Your task to perform on an android device: turn on showing notifications on the lock screen Image 0: 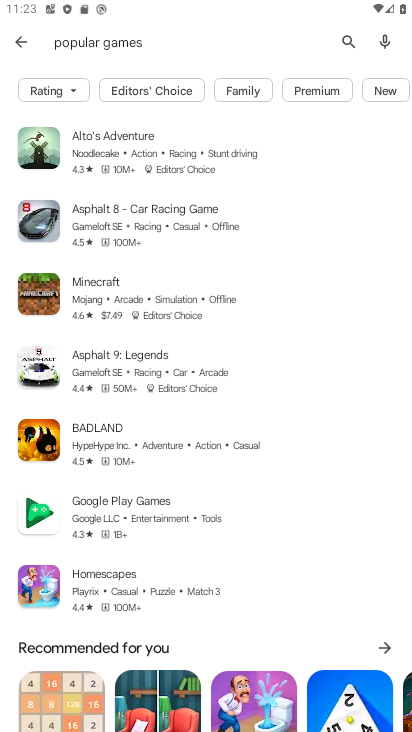
Step 0: press home button
Your task to perform on an android device: turn on showing notifications on the lock screen Image 1: 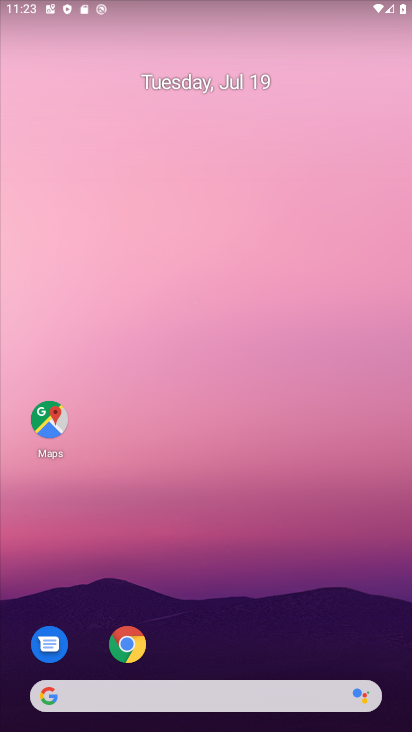
Step 1: drag from (293, 640) to (295, 92)
Your task to perform on an android device: turn on showing notifications on the lock screen Image 2: 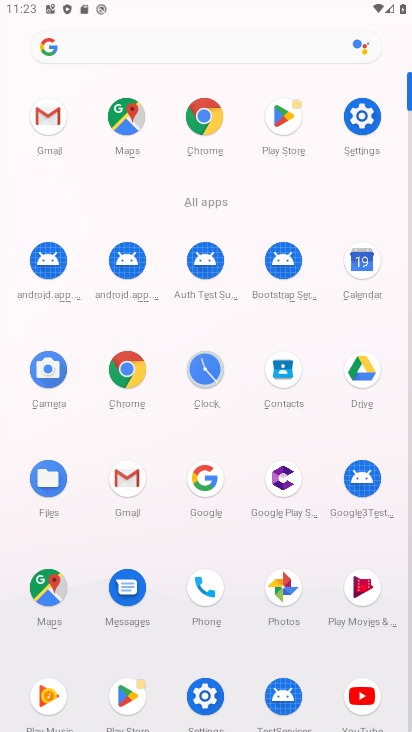
Step 2: click (212, 687)
Your task to perform on an android device: turn on showing notifications on the lock screen Image 3: 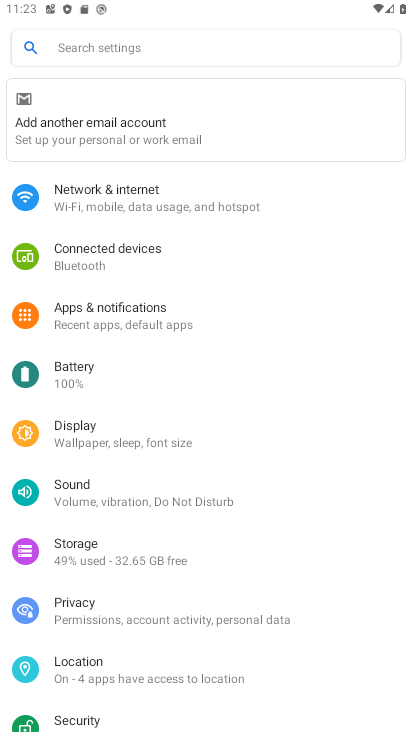
Step 3: click (166, 297)
Your task to perform on an android device: turn on showing notifications on the lock screen Image 4: 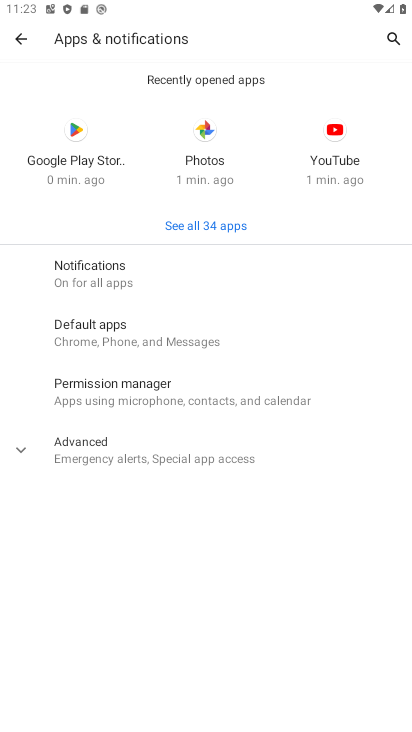
Step 4: click (118, 271)
Your task to perform on an android device: turn on showing notifications on the lock screen Image 5: 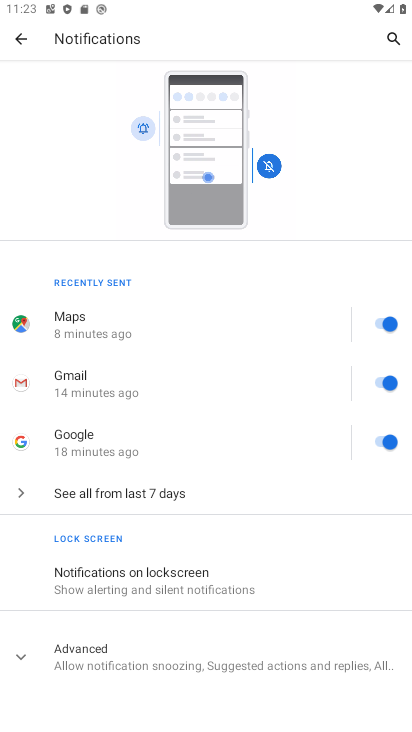
Step 5: click (115, 574)
Your task to perform on an android device: turn on showing notifications on the lock screen Image 6: 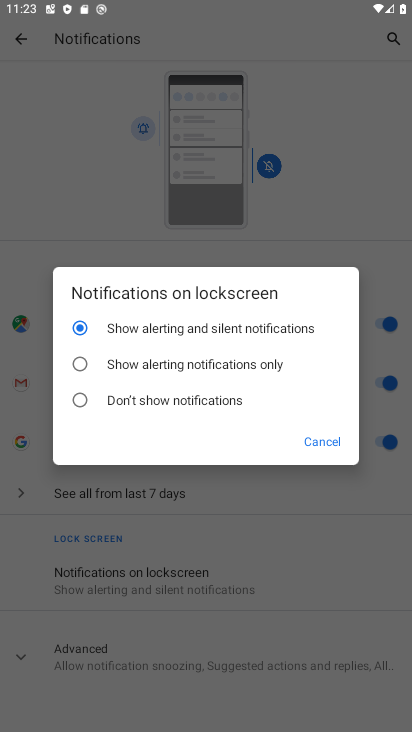
Step 6: click (197, 357)
Your task to perform on an android device: turn on showing notifications on the lock screen Image 7: 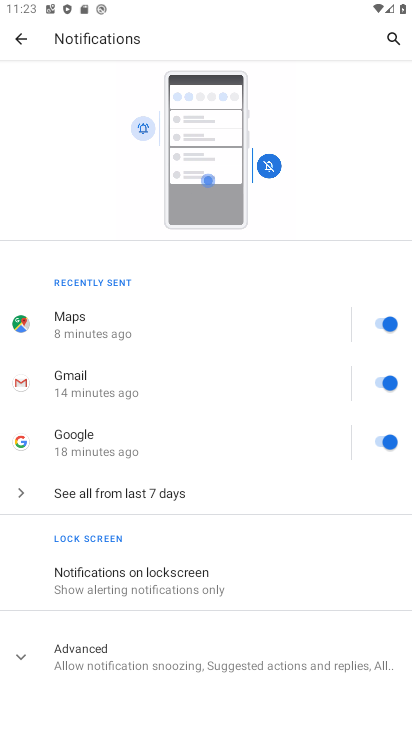
Step 7: task complete